Your task to perform on an android device: What's the weather going to be tomorrow? Image 0: 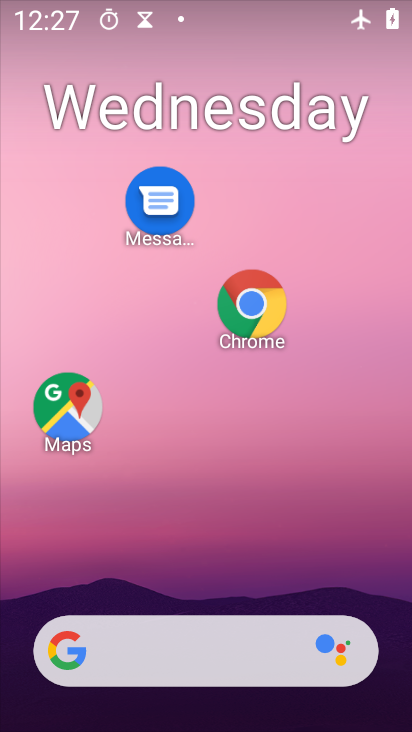
Step 0: drag from (271, 373) to (271, 73)
Your task to perform on an android device: What's the weather going to be tomorrow? Image 1: 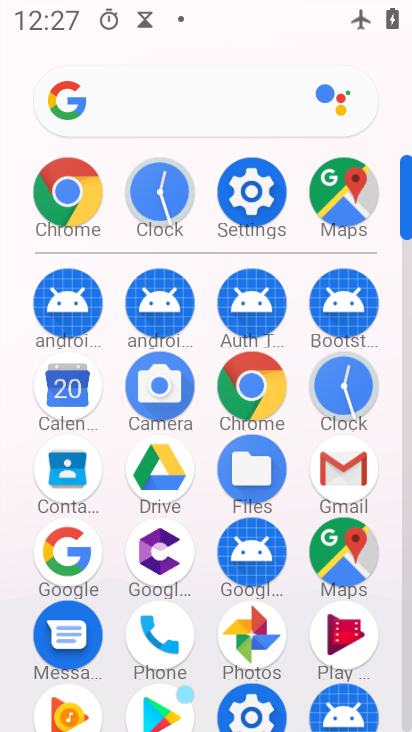
Step 1: click (252, 382)
Your task to perform on an android device: What's the weather going to be tomorrow? Image 2: 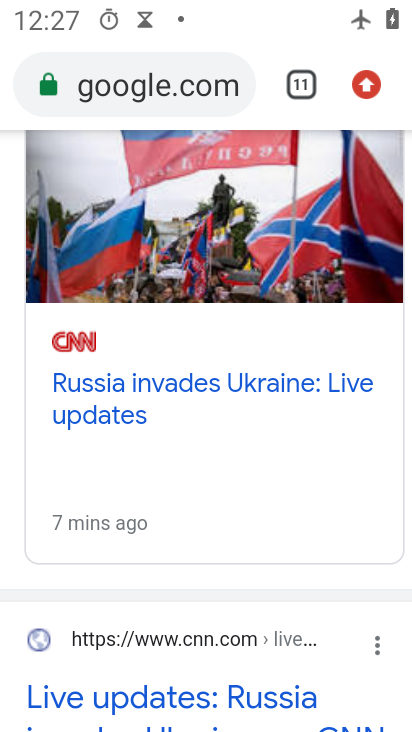
Step 2: click (375, 87)
Your task to perform on an android device: What's the weather going to be tomorrow? Image 3: 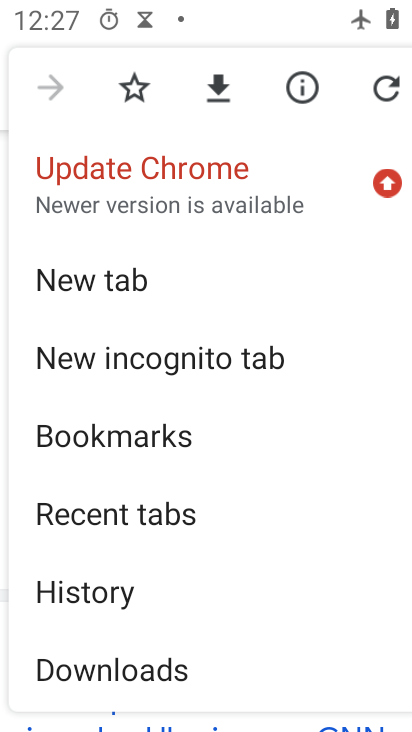
Step 3: click (158, 268)
Your task to perform on an android device: What's the weather going to be tomorrow? Image 4: 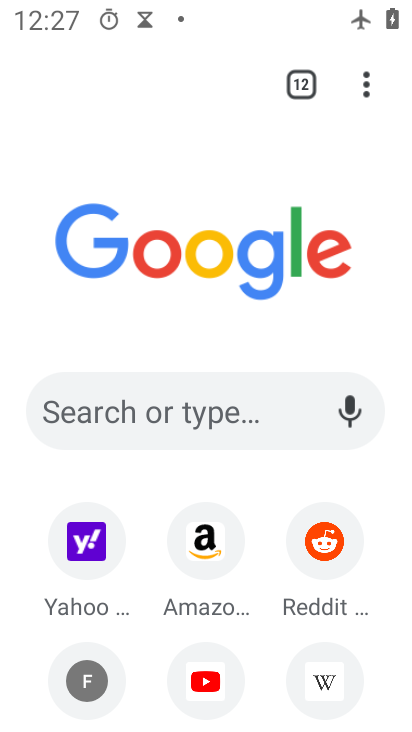
Step 4: click (221, 416)
Your task to perform on an android device: What's the weather going to be tomorrow? Image 5: 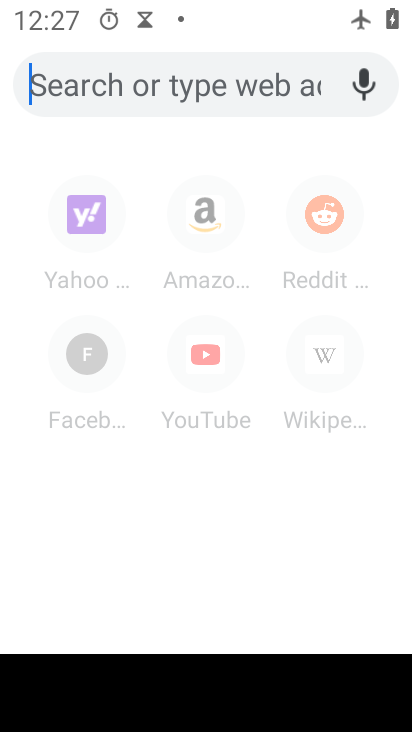
Step 5: type "What's the weather going to be tomorrow?"
Your task to perform on an android device: What's the weather going to be tomorrow? Image 6: 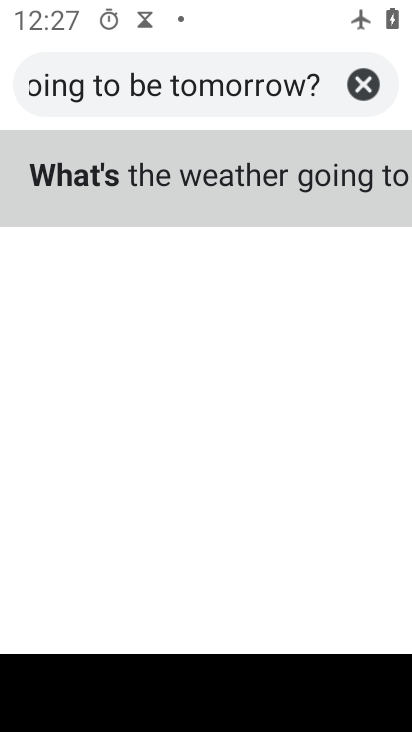
Step 6: click (299, 181)
Your task to perform on an android device: What's the weather going to be tomorrow? Image 7: 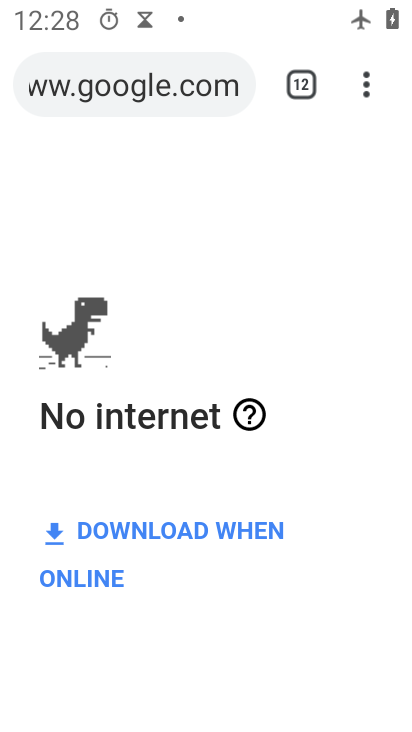
Step 7: task complete